Your task to perform on an android device: star an email in the gmail app Image 0: 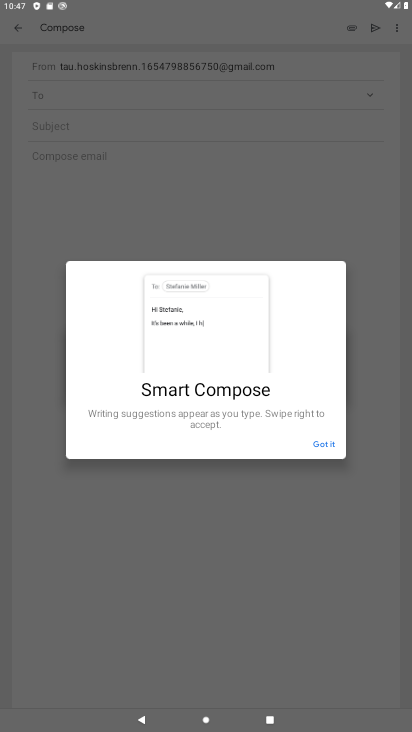
Step 0: press home button
Your task to perform on an android device: star an email in the gmail app Image 1: 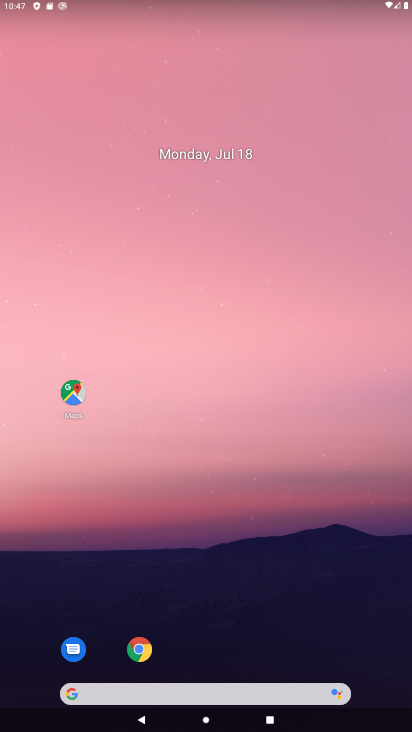
Step 1: drag from (347, 565) to (346, 145)
Your task to perform on an android device: star an email in the gmail app Image 2: 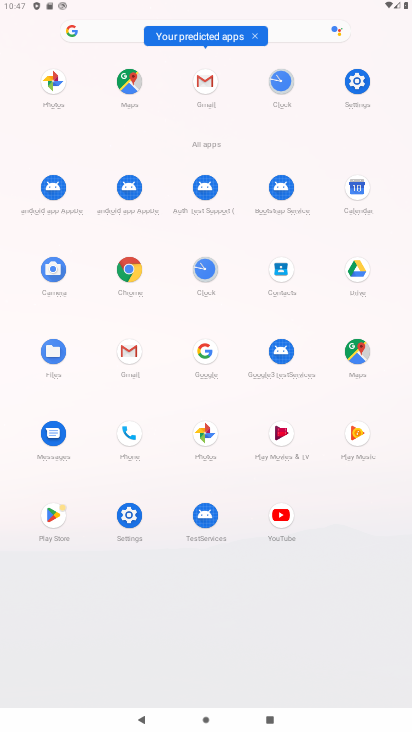
Step 2: click (120, 352)
Your task to perform on an android device: star an email in the gmail app Image 3: 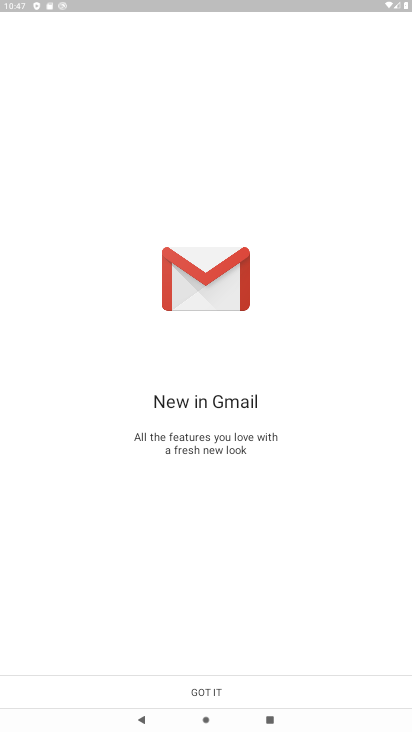
Step 3: click (234, 695)
Your task to perform on an android device: star an email in the gmail app Image 4: 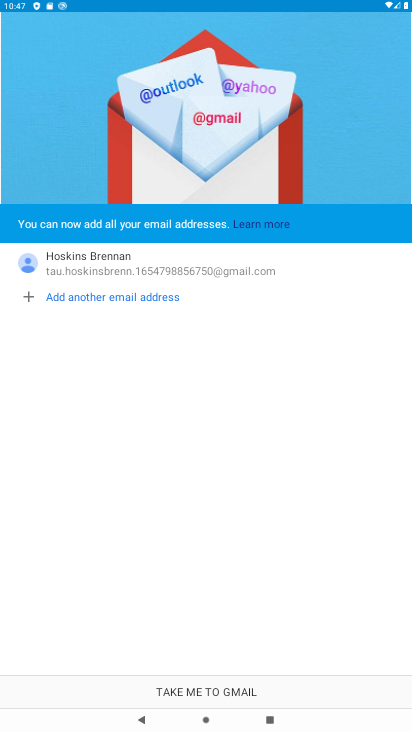
Step 4: click (234, 695)
Your task to perform on an android device: star an email in the gmail app Image 5: 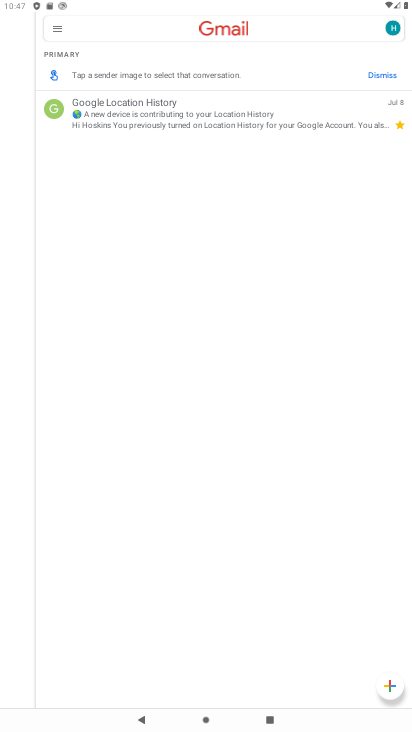
Step 5: click (59, 20)
Your task to perform on an android device: star an email in the gmail app Image 6: 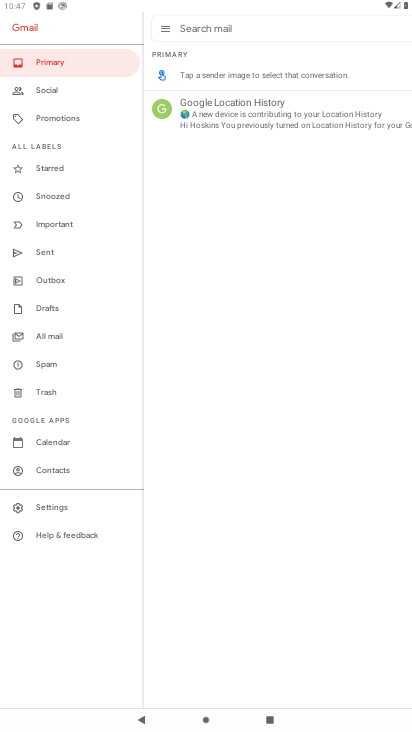
Step 6: click (46, 325)
Your task to perform on an android device: star an email in the gmail app Image 7: 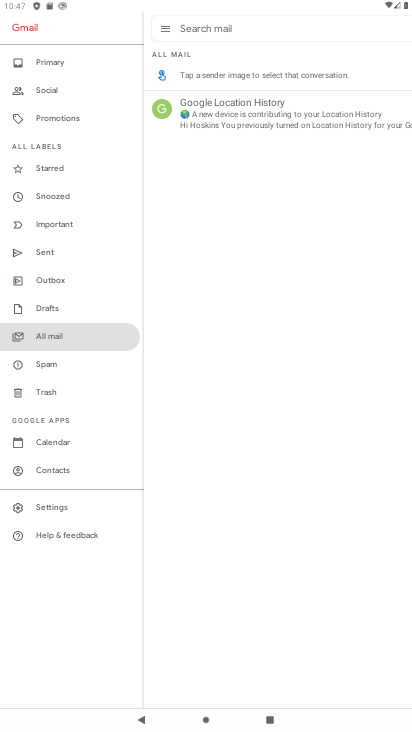
Step 7: click (241, 301)
Your task to perform on an android device: star an email in the gmail app Image 8: 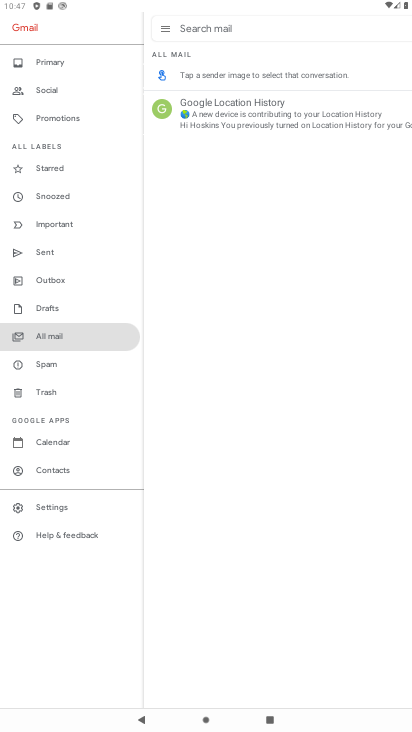
Step 8: click (172, 20)
Your task to perform on an android device: star an email in the gmail app Image 9: 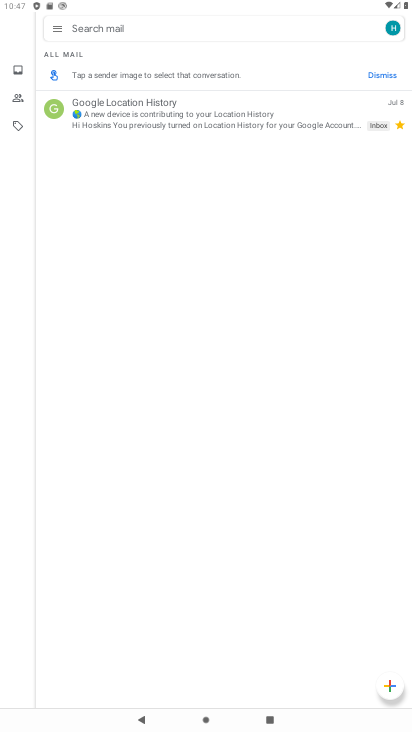
Step 9: task complete